Your task to perform on an android device: clear history in the chrome app Image 0: 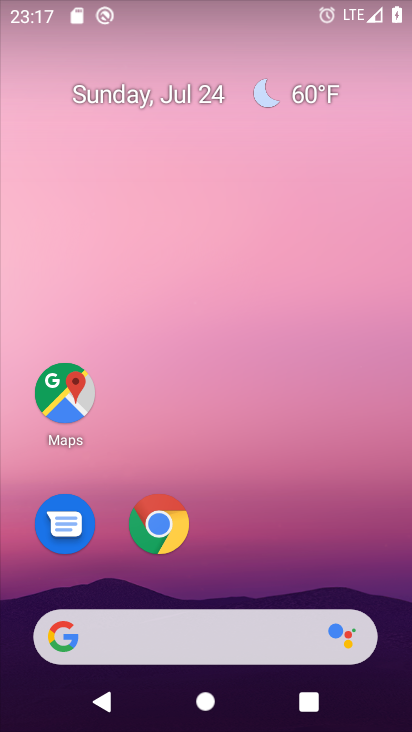
Step 0: click (153, 518)
Your task to perform on an android device: clear history in the chrome app Image 1: 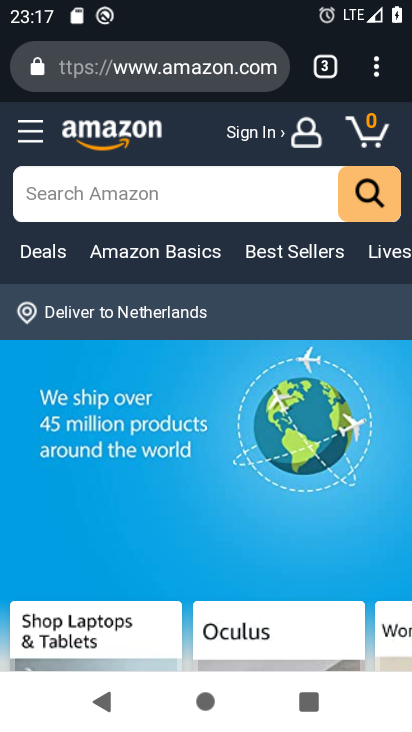
Step 1: click (378, 67)
Your task to perform on an android device: clear history in the chrome app Image 2: 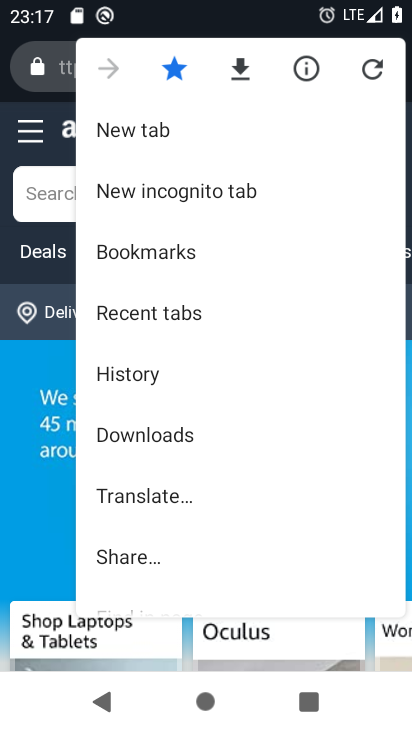
Step 2: click (149, 373)
Your task to perform on an android device: clear history in the chrome app Image 3: 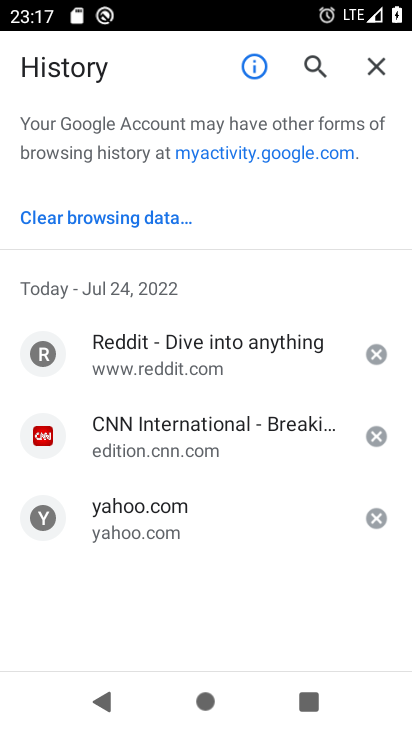
Step 3: click (151, 215)
Your task to perform on an android device: clear history in the chrome app Image 4: 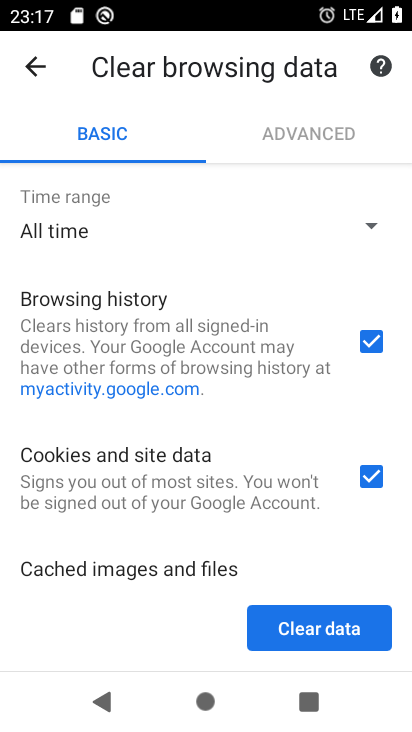
Step 4: drag from (263, 438) to (271, 274)
Your task to perform on an android device: clear history in the chrome app Image 5: 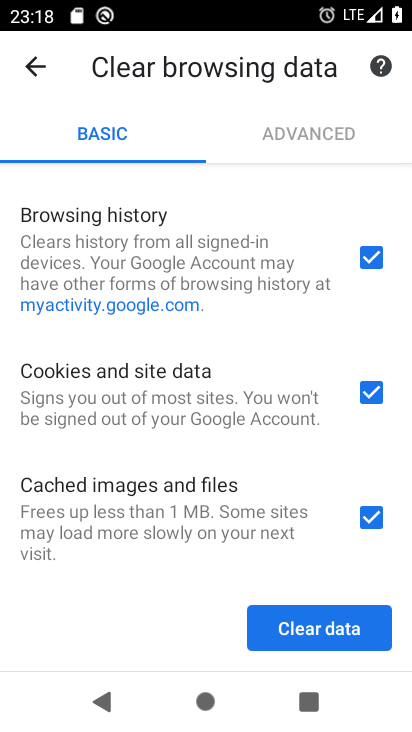
Step 5: click (322, 621)
Your task to perform on an android device: clear history in the chrome app Image 6: 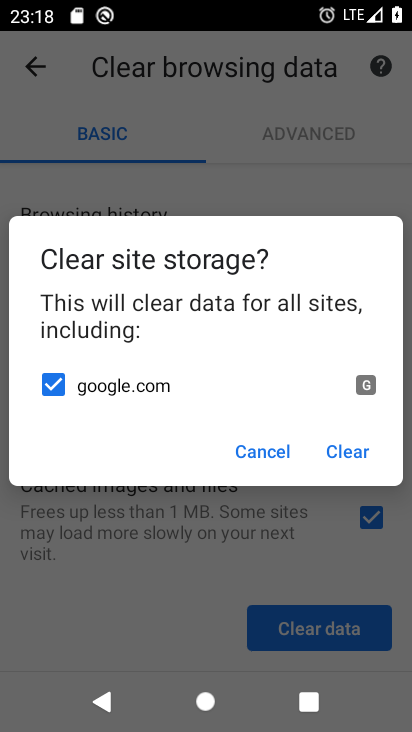
Step 6: click (342, 452)
Your task to perform on an android device: clear history in the chrome app Image 7: 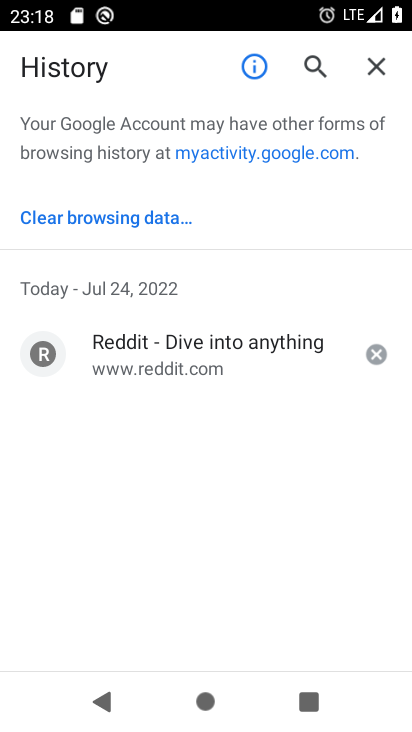
Step 7: task complete